Your task to perform on an android device: turn on showing notifications on the lock screen Image 0: 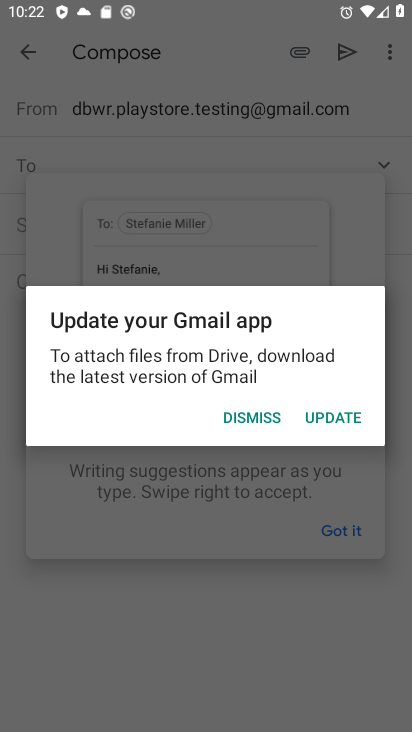
Step 0: press home button
Your task to perform on an android device: turn on showing notifications on the lock screen Image 1: 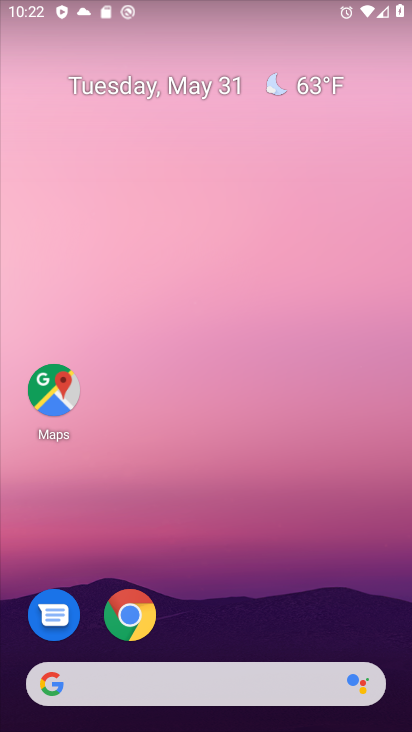
Step 1: drag from (325, 130) to (331, 93)
Your task to perform on an android device: turn on showing notifications on the lock screen Image 2: 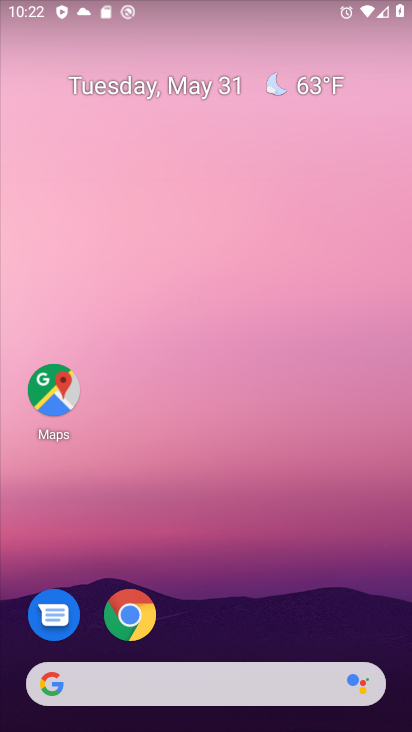
Step 2: drag from (249, 707) to (344, 89)
Your task to perform on an android device: turn on showing notifications on the lock screen Image 3: 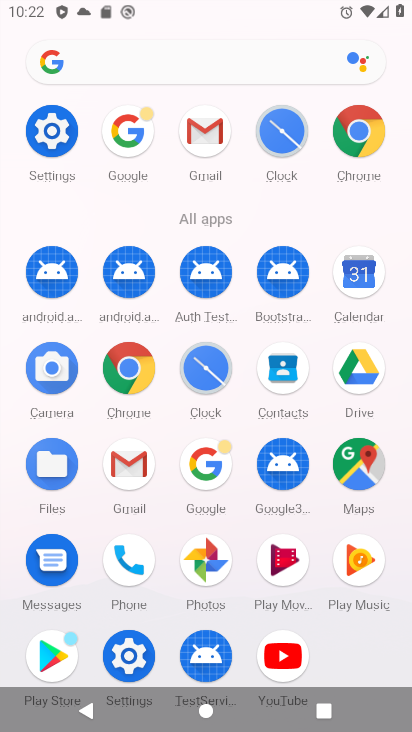
Step 3: drag from (116, 639) to (223, 384)
Your task to perform on an android device: turn on showing notifications on the lock screen Image 4: 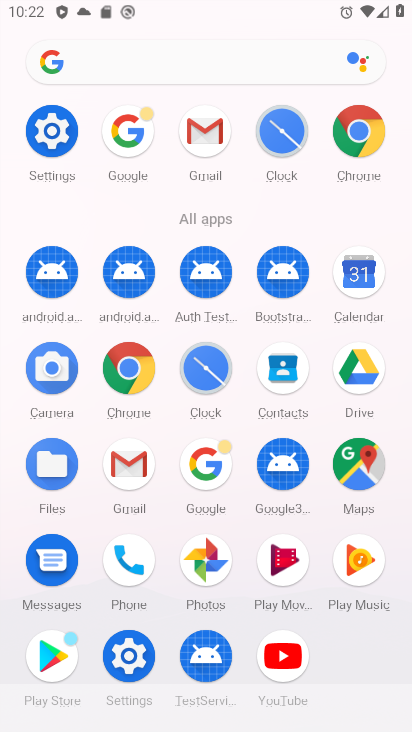
Step 4: click (114, 632)
Your task to perform on an android device: turn on showing notifications on the lock screen Image 5: 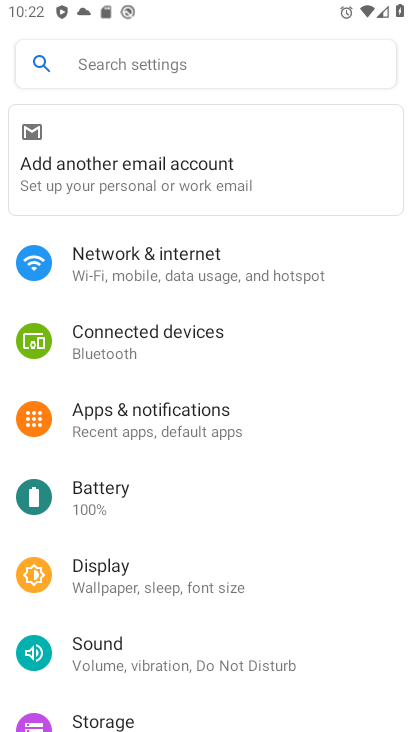
Step 5: click (243, 444)
Your task to perform on an android device: turn on showing notifications on the lock screen Image 6: 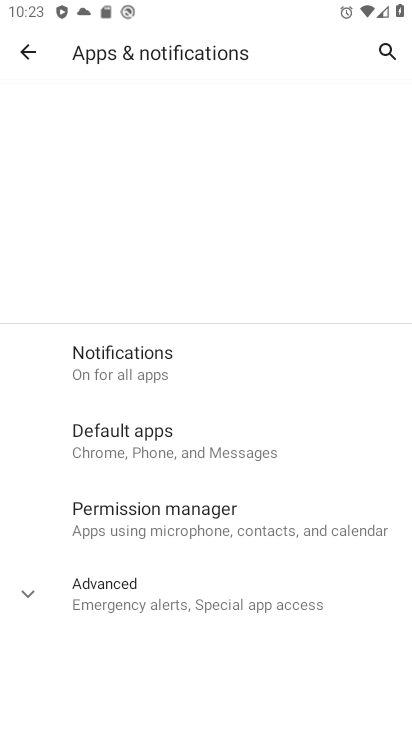
Step 6: click (241, 379)
Your task to perform on an android device: turn on showing notifications on the lock screen Image 7: 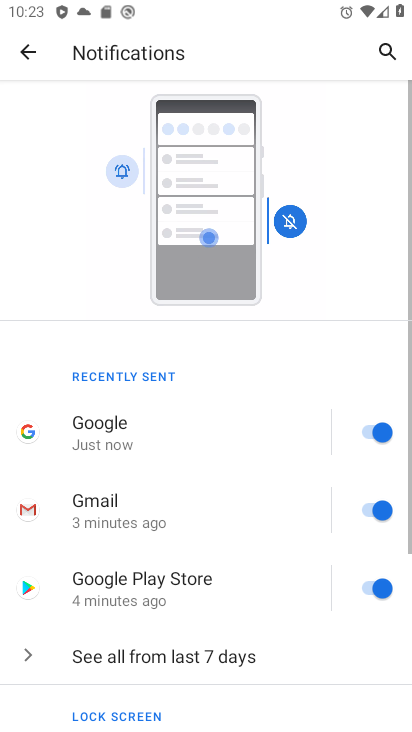
Step 7: drag from (173, 721) to (257, 279)
Your task to perform on an android device: turn on showing notifications on the lock screen Image 8: 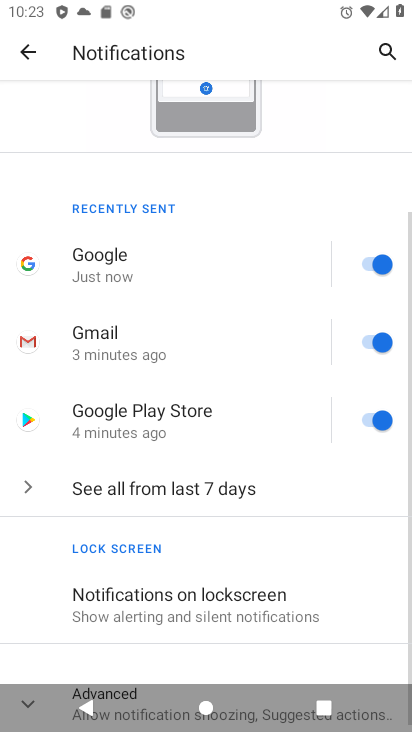
Step 8: click (248, 604)
Your task to perform on an android device: turn on showing notifications on the lock screen Image 9: 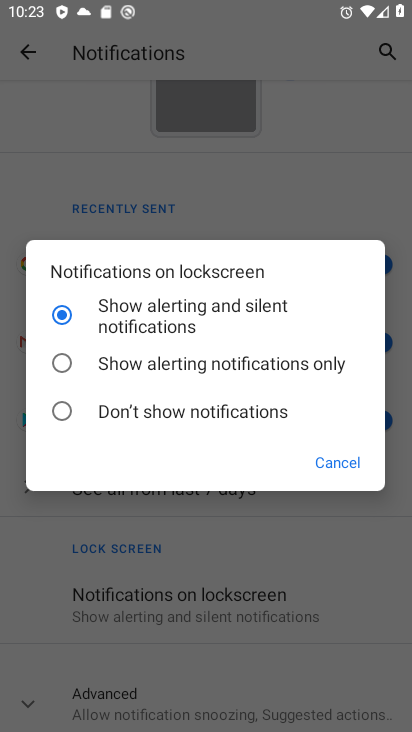
Step 9: task complete